Your task to perform on an android device: find snoozed emails in the gmail app Image 0: 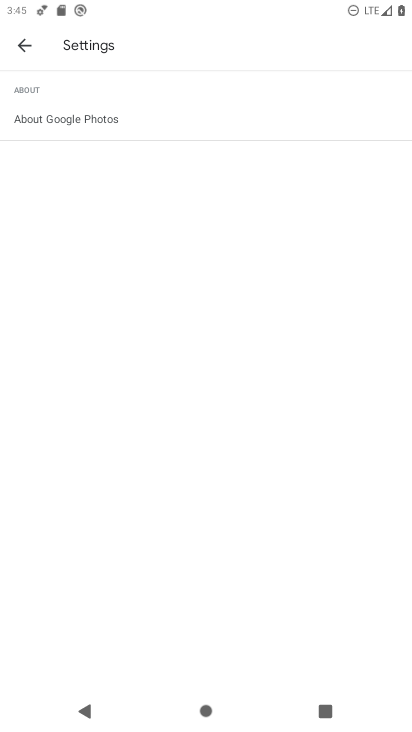
Step 0: press home button
Your task to perform on an android device: find snoozed emails in the gmail app Image 1: 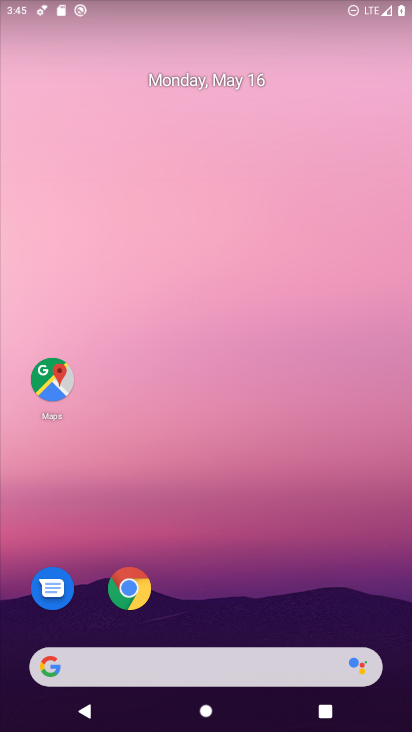
Step 1: drag from (371, 610) to (364, 0)
Your task to perform on an android device: find snoozed emails in the gmail app Image 2: 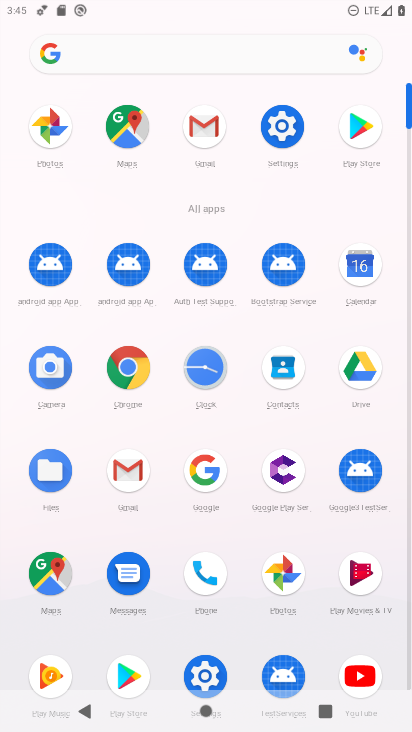
Step 2: click (122, 472)
Your task to perform on an android device: find snoozed emails in the gmail app Image 3: 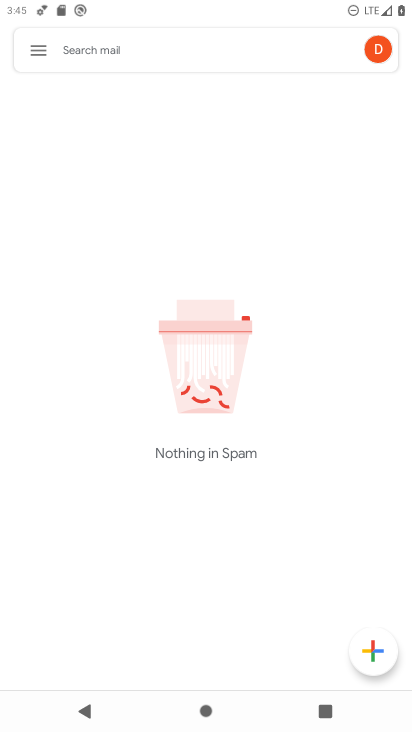
Step 3: click (40, 50)
Your task to perform on an android device: find snoozed emails in the gmail app Image 4: 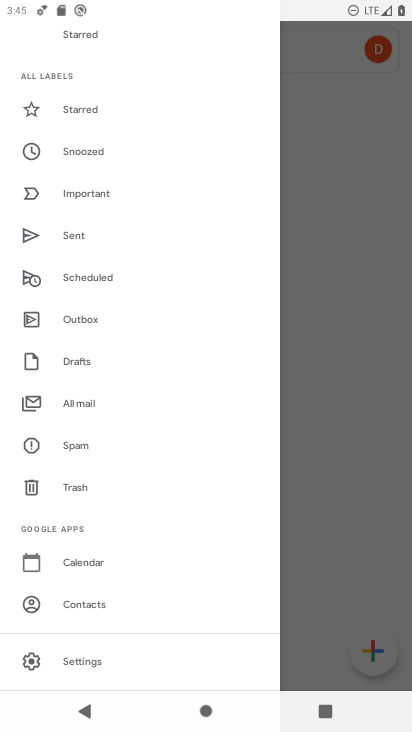
Step 4: click (79, 144)
Your task to perform on an android device: find snoozed emails in the gmail app Image 5: 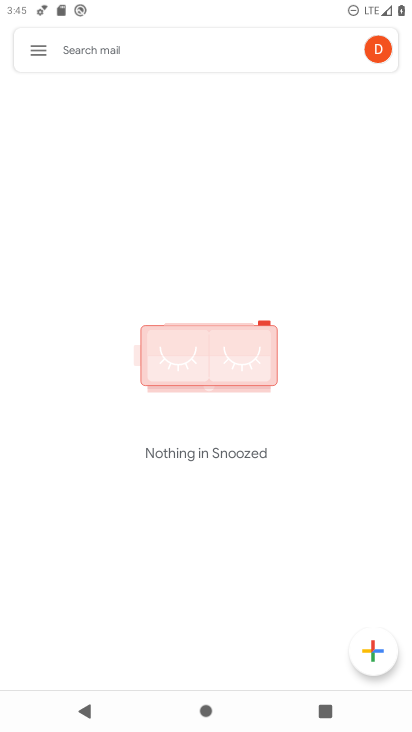
Step 5: task complete